Your task to perform on an android device: Set the phone to "Do not disturb". Image 0: 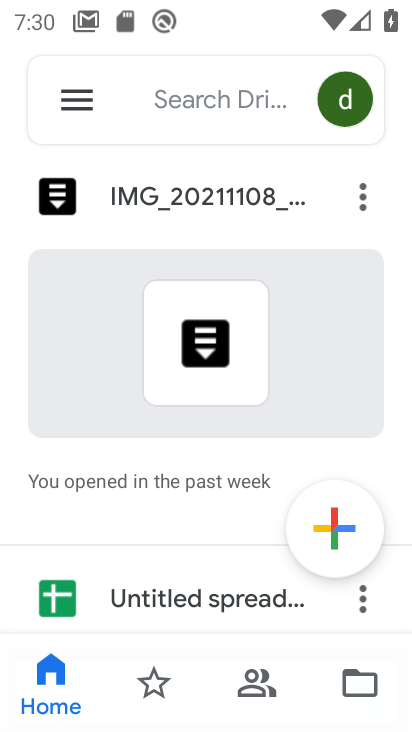
Step 0: press home button
Your task to perform on an android device: Set the phone to "Do not disturb". Image 1: 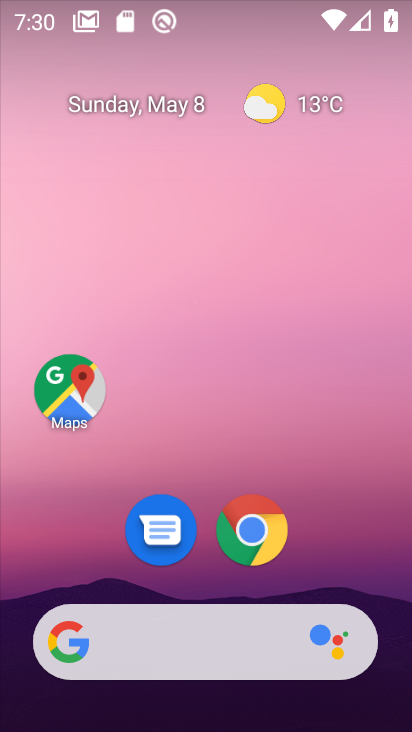
Step 1: drag from (231, 205) to (232, 579)
Your task to perform on an android device: Set the phone to "Do not disturb". Image 2: 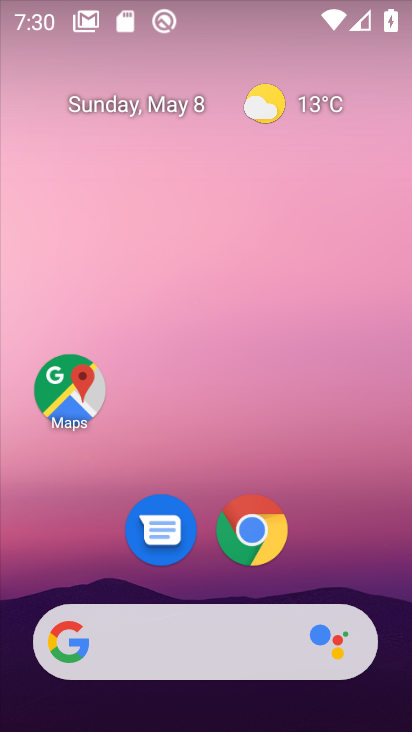
Step 2: drag from (204, 9) to (203, 656)
Your task to perform on an android device: Set the phone to "Do not disturb". Image 3: 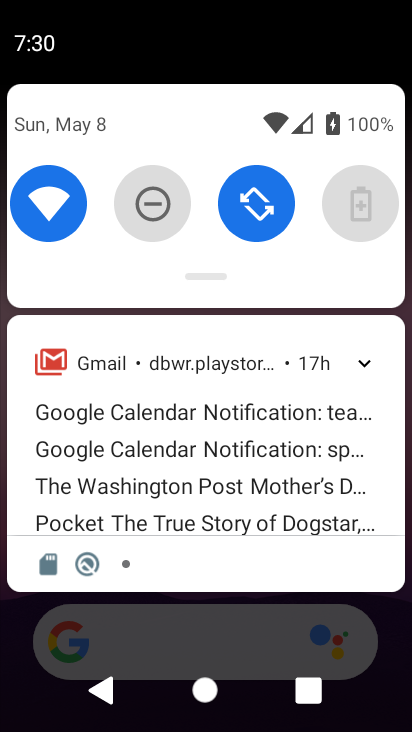
Step 3: click (149, 204)
Your task to perform on an android device: Set the phone to "Do not disturb". Image 4: 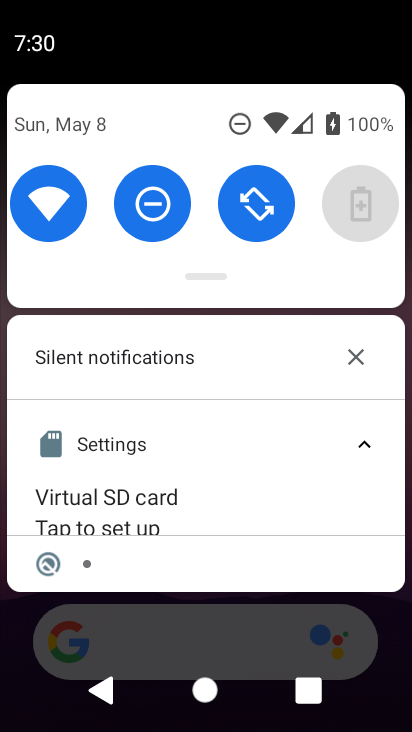
Step 4: task complete